Your task to perform on an android device: Search for usb-a to usb-b on walmart, select the first entry, and add it to the cart. Image 0: 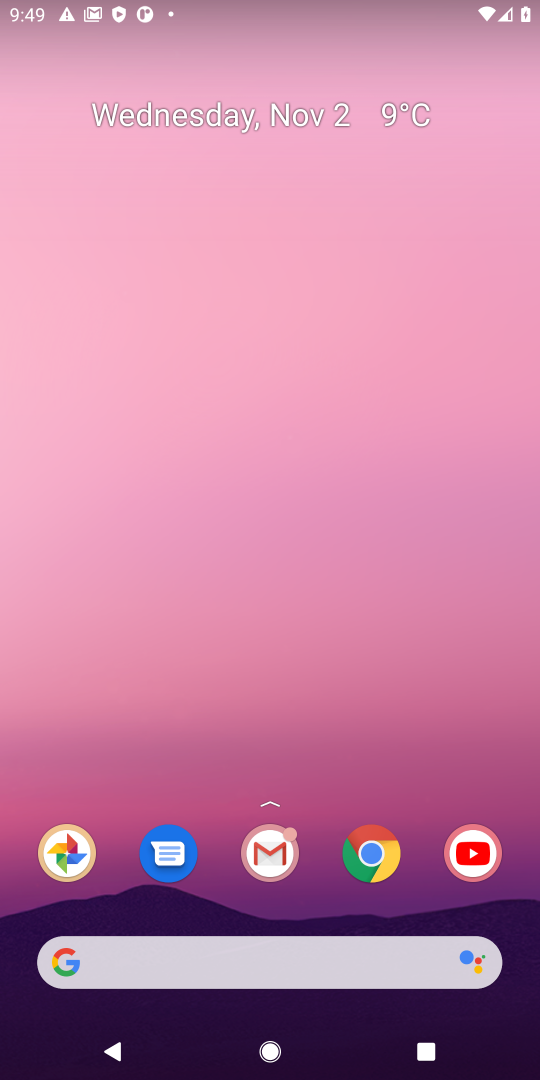
Step 0: click (372, 843)
Your task to perform on an android device: Search for usb-a to usb-b on walmart, select the first entry, and add it to the cart. Image 1: 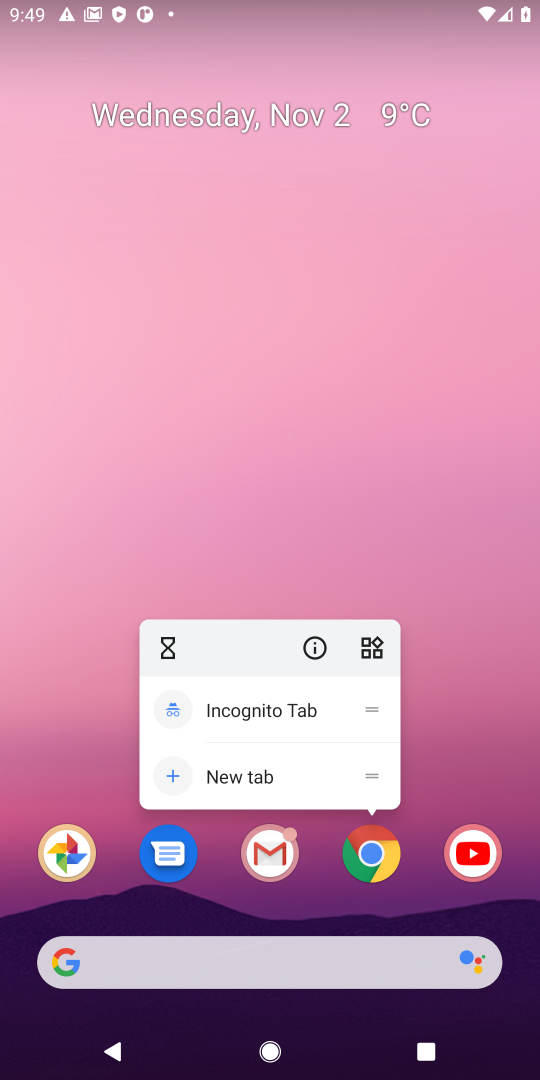
Step 1: click (372, 844)
Your task to perform on an android device: Search for usb-a to usb-b on walmart, select the first entry, and add it to the cart. Image 2: 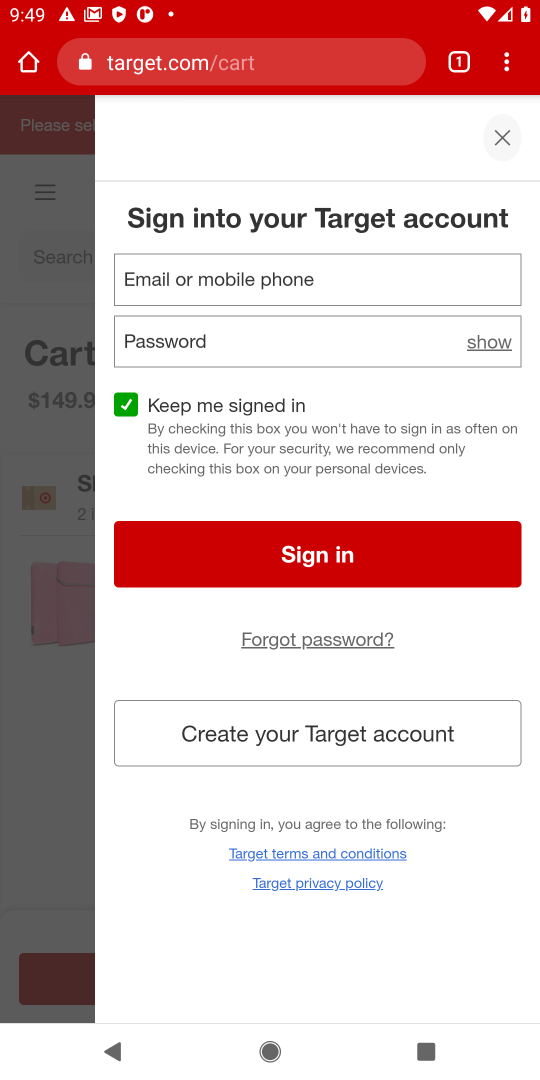
Step 2: click (501, 128)
Your task to perform on an android device: Search for usb-a to usb-b on walmart, select the first entry, and add it to the cart. Image 3: 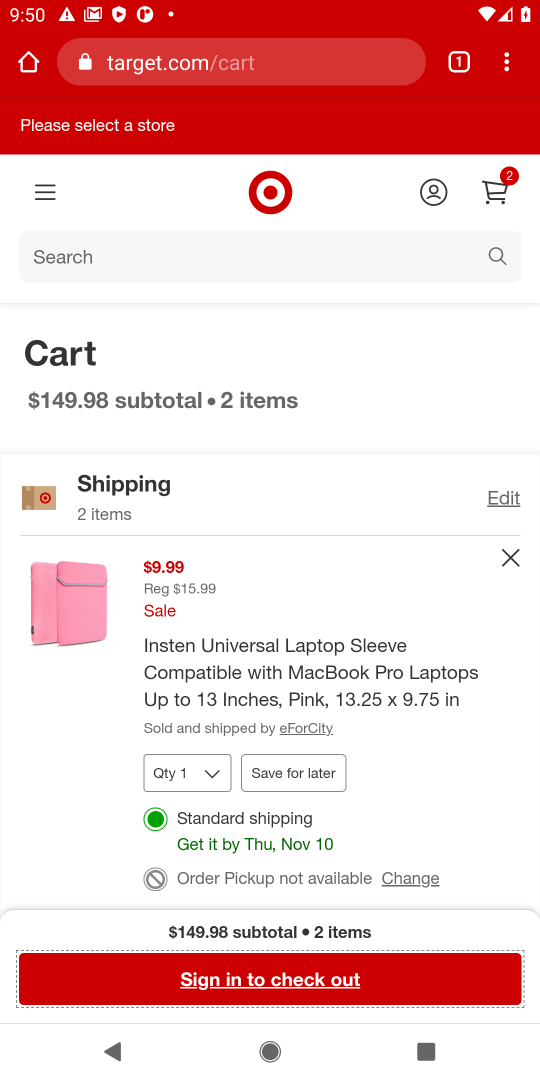
Step 3: click (204, 61)
Your task to perform on an android device: Search for usb-a to usb-b on walmart, select the first entry, and add it to the cart. Image 4: 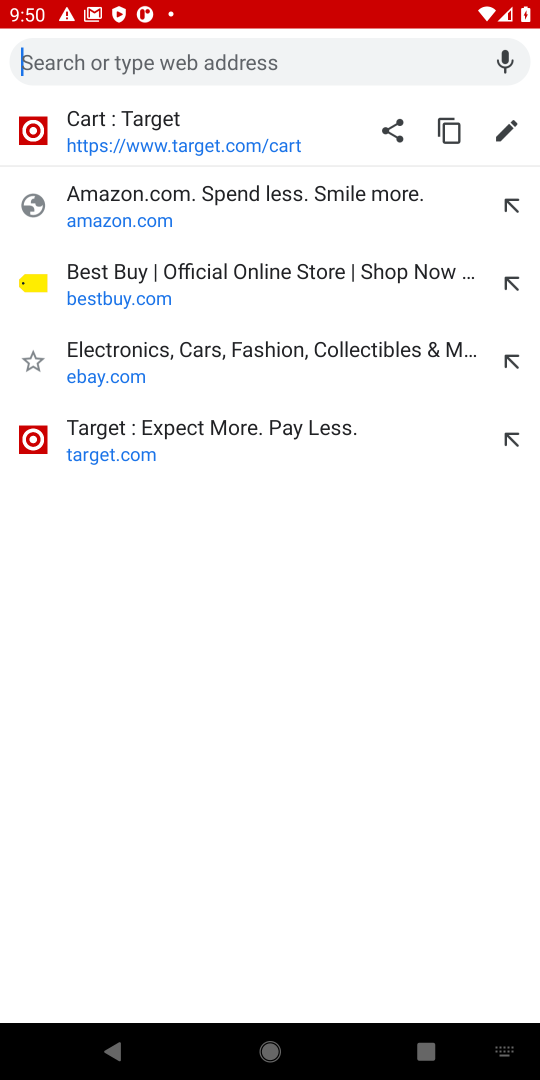
Step 4: type "walmart,"
Your task to perform on an android device: Search for usb-a to usb-b on walmart, select the first entry, and add it to the cart. Image 5: 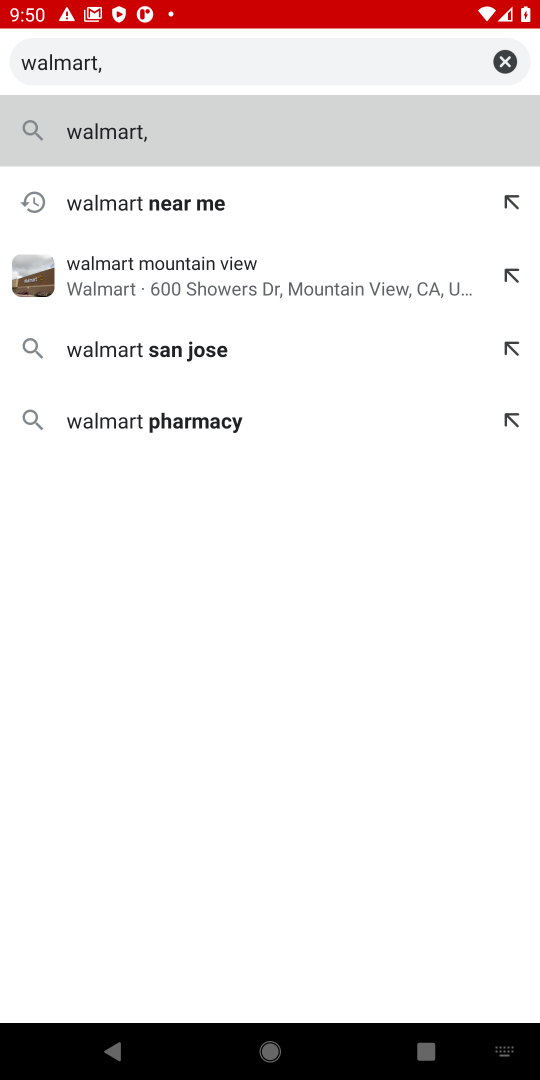
Step 5: press enter
Your task to perform on an android device: Search for usb-a to usb-b on walmart, select the first entry, and add it to the cart. Image 6: 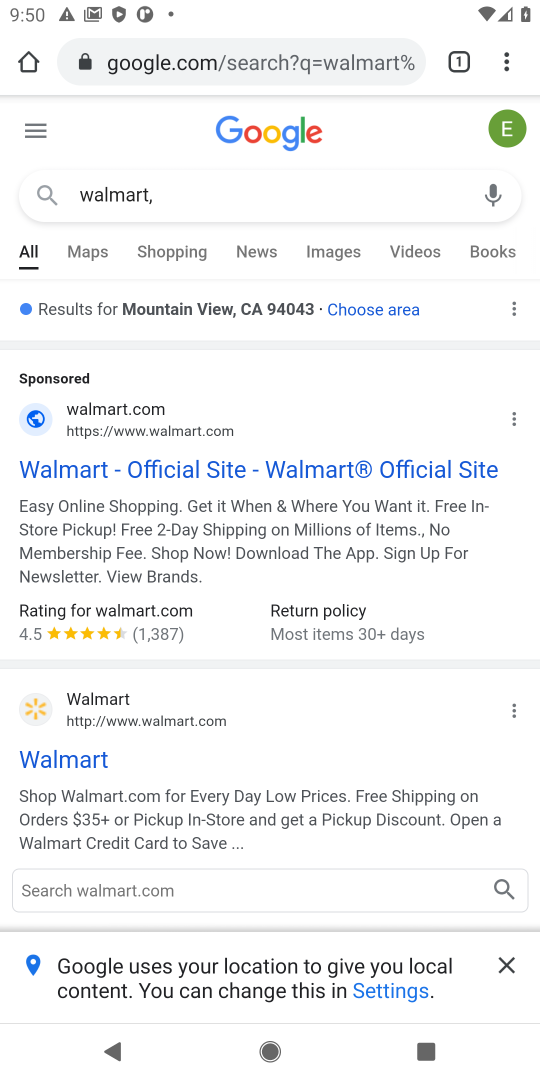
Step 6: click (284, 458)
Your task to perform on an android device: Search for usb-a to usb-b on walmart, select the first entry, and add it to the cart. Image 7: 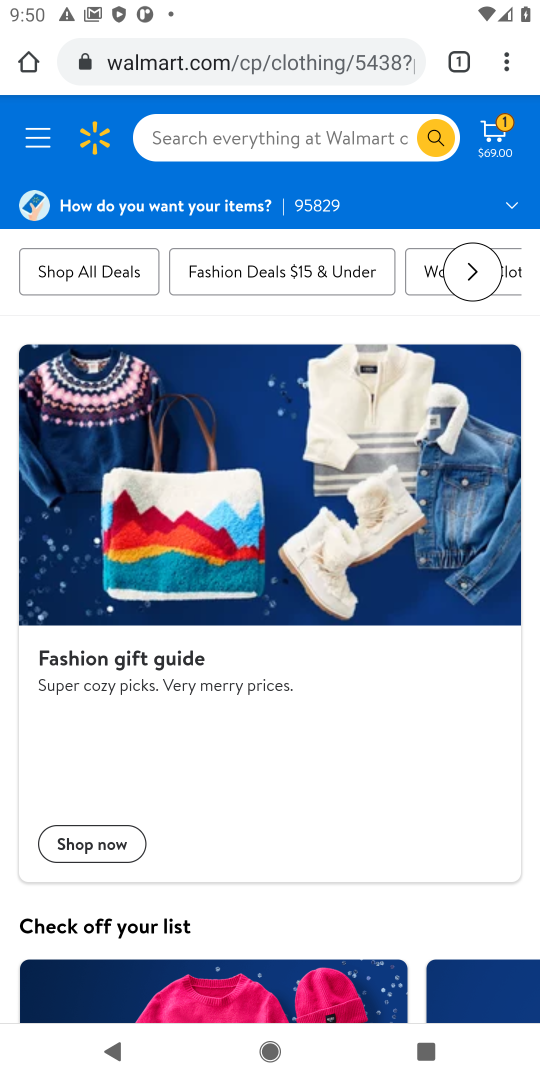
Step 7: click (294, 135)
Your task to perform on an android device: Search for usb-a to usb-b on walmart, select the first entry, and add it to the cart. Image 8: 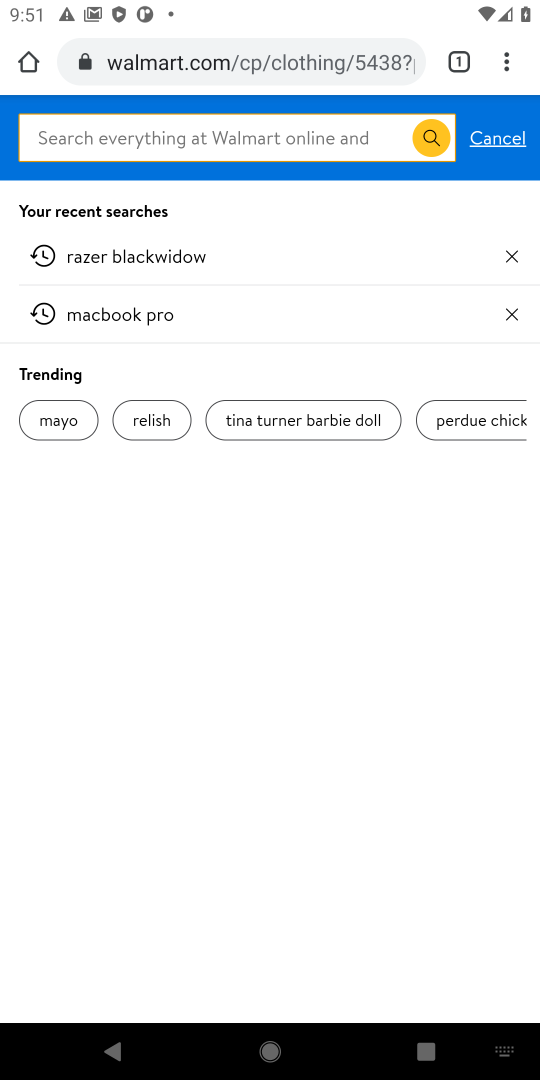
Step 8: type "usb-a to usb-b"
Your task to perform on an android device: Search for usb-a to usb-b on walmart, select the first entry, and add it to the cart. Image 9: 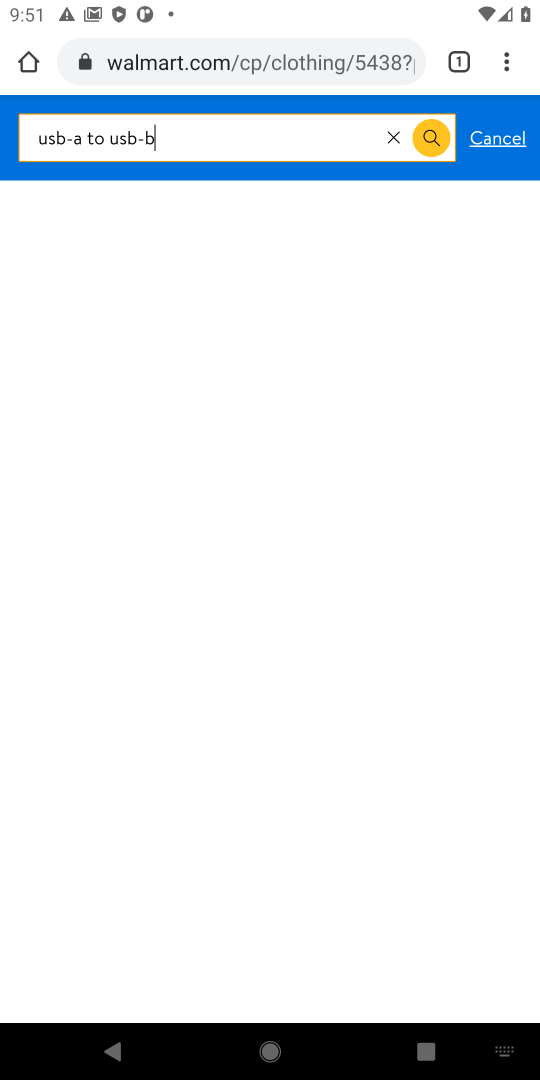
Step 9: press enter
Your task to perform on an android device: Search for usb-a to usb-b on walmart, select the first entry, and add it to the cart. Image 10: 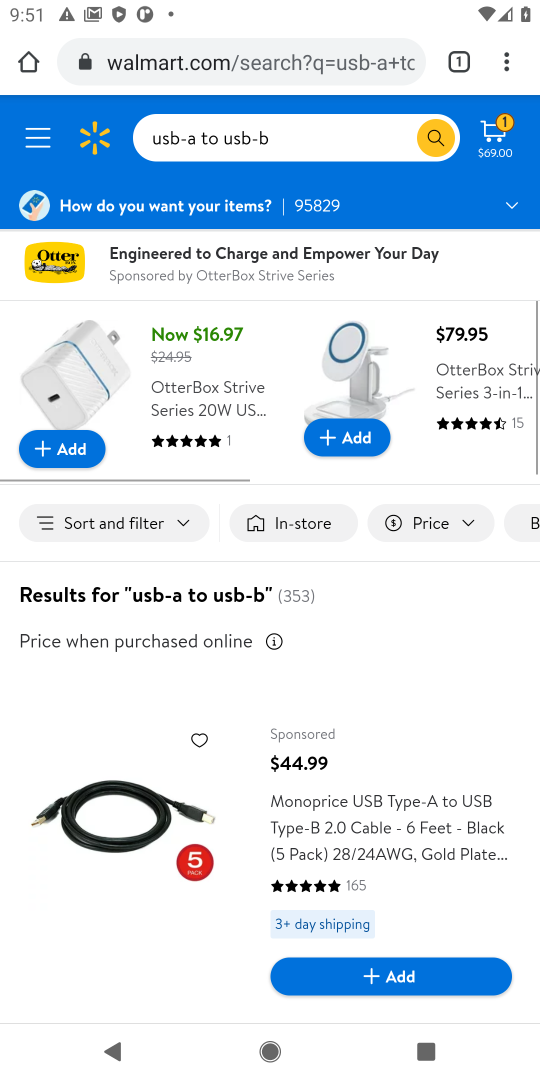
Step 10: drag from (311, 796) to (333, 595)
Your task to perform on an android device: Search for usb-a to usb-b on walmart, select the first entry, and add it to the cart. Image 11: 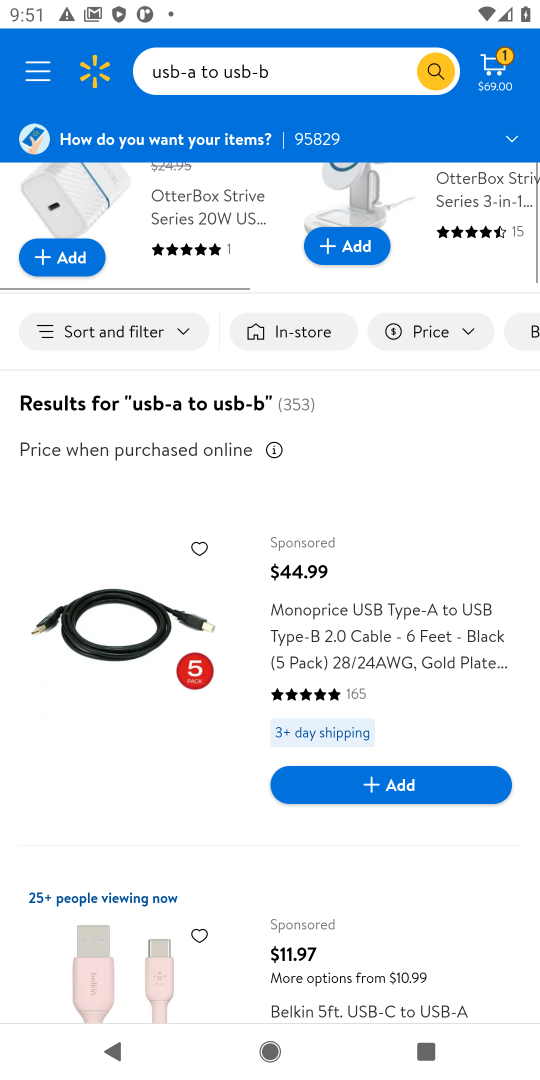
Step 11: click (397, 787)
Your task to perform on an android device: Search for usb-a to usb-b on walmart, select the first entry, and add it to the cart. Image 12: 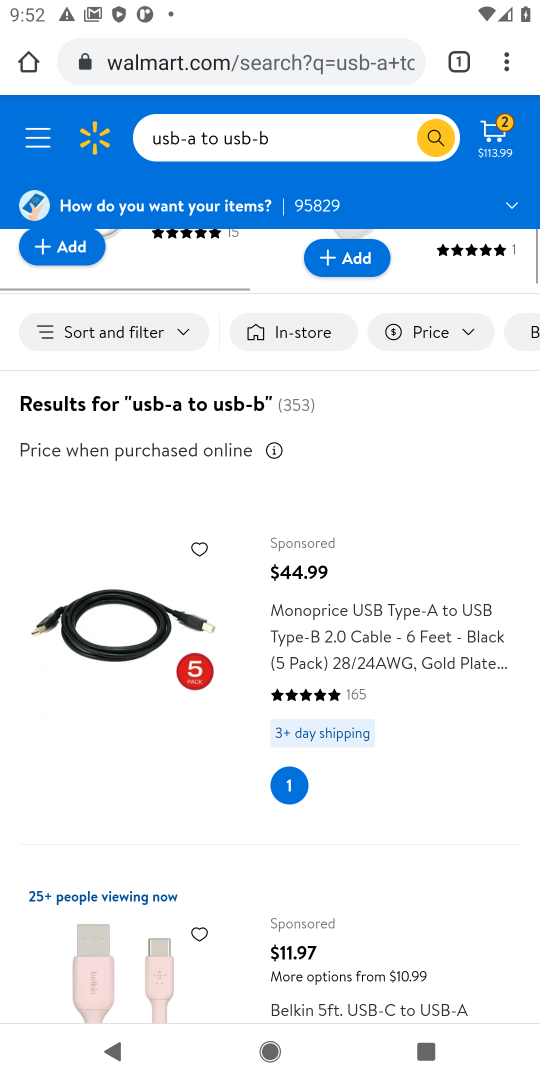
Step 12: task complete